Your task to perform on an android device: turn pop-ups on in chrome Image 0: 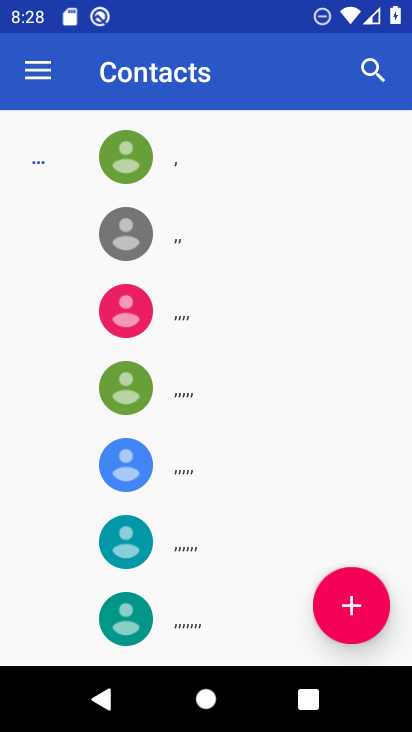
Step 0: press home button
Your task to perform on an android device: turn pop-ups on in chrome Image 1: 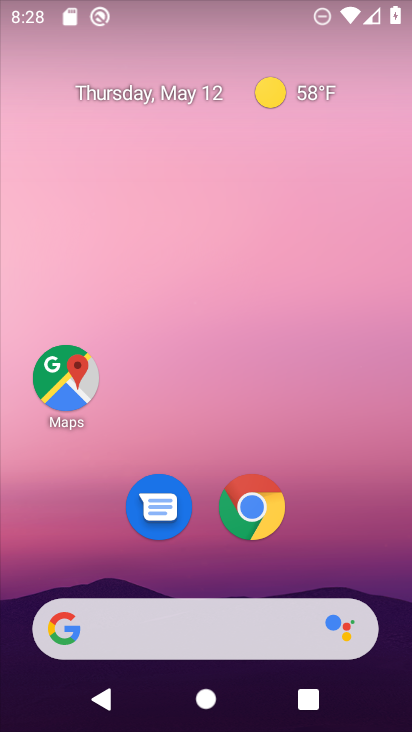
Step 1: click (249, 521)
Your task to perform on an android device: turn pop-ups on in chrome Image 2: 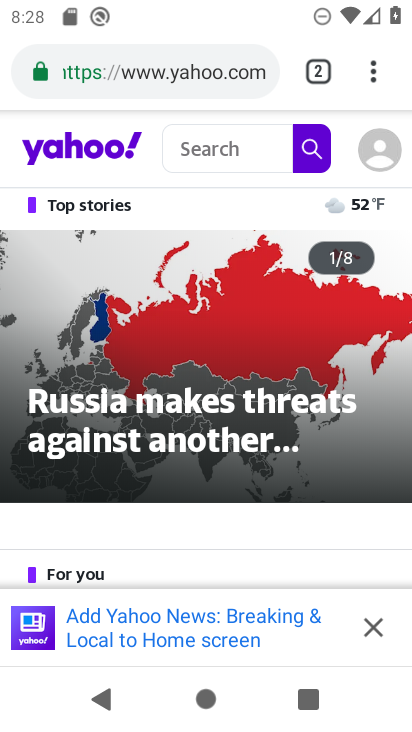
Step 2: drag from (368, 68) to (123, 500)
Your task to perform on an android device: turn pop-ups on in chrome Image 3: 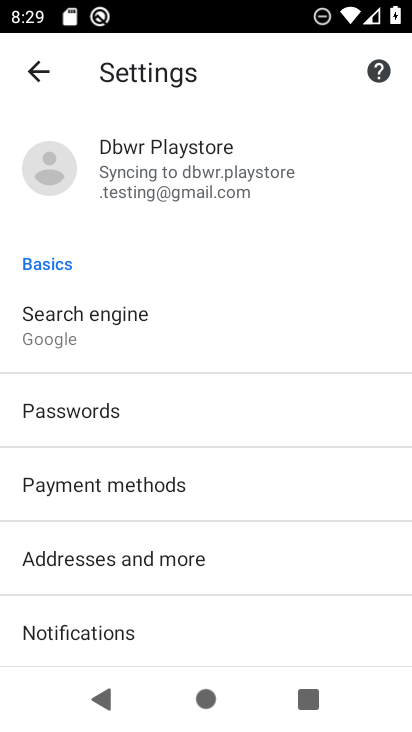
Step 3: drag from (170, 559) to (179, 316)
Your task to perform on an android device: turn pop-ups on in chrome Image 4: 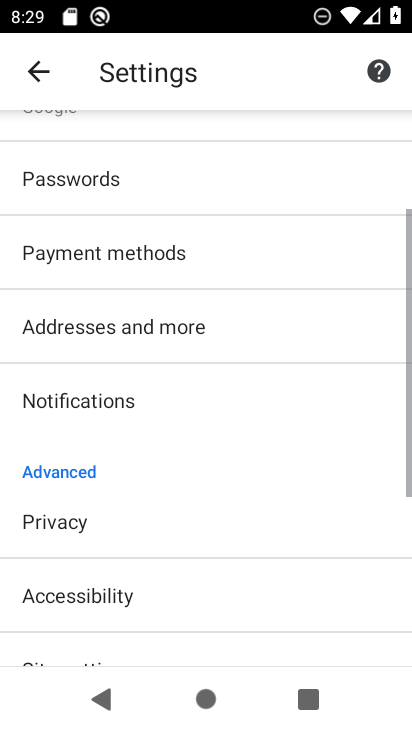
Step 4: drag from (185, 516) to (192, 326)
Your task to perform on an android device: turn pop-ups on in chrome Image 5: 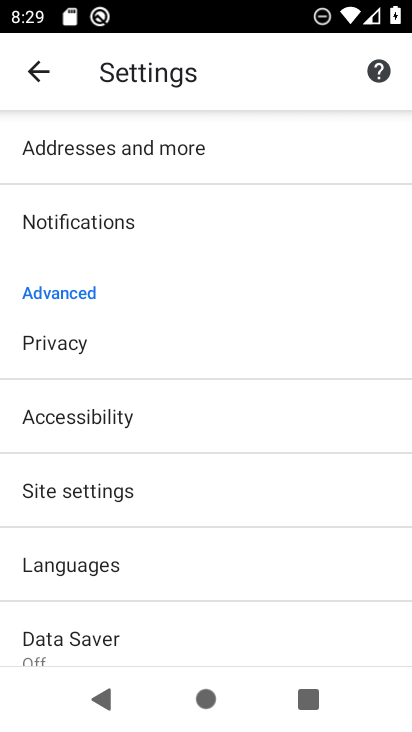
Step 5: click (86, 482)
Your task to perform on an android device: turn pop-ups on in chrome Image 6: 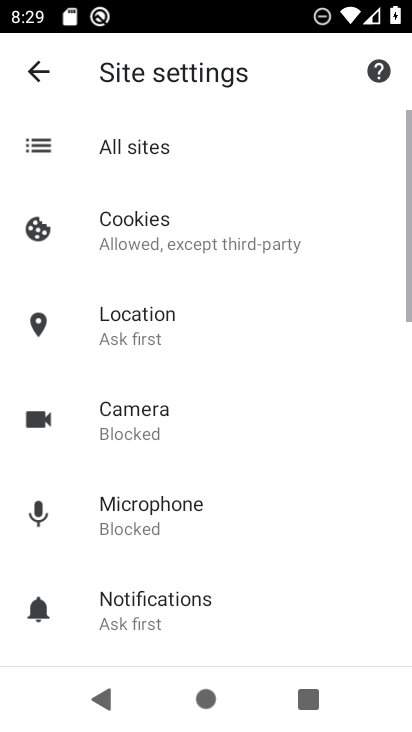
Step 6: drag from (204, 572) to (243, 302)
Your task to perform on an android device: turn pop-ups on in chrome Image 7: 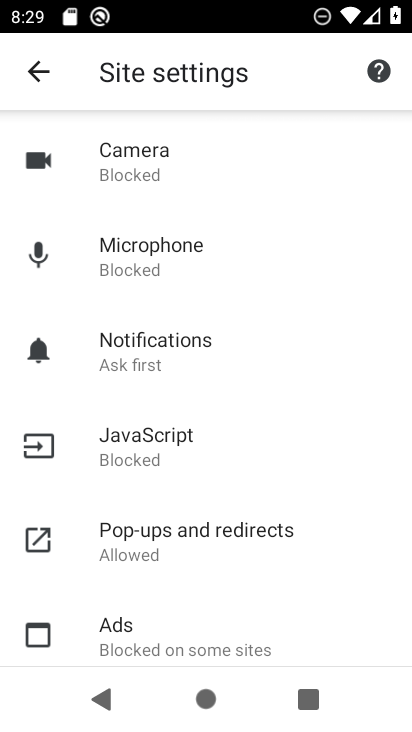
Step 7: click (221, 545)
Your task to perform on an android device: turn pop-ups on in chrome Image 8: 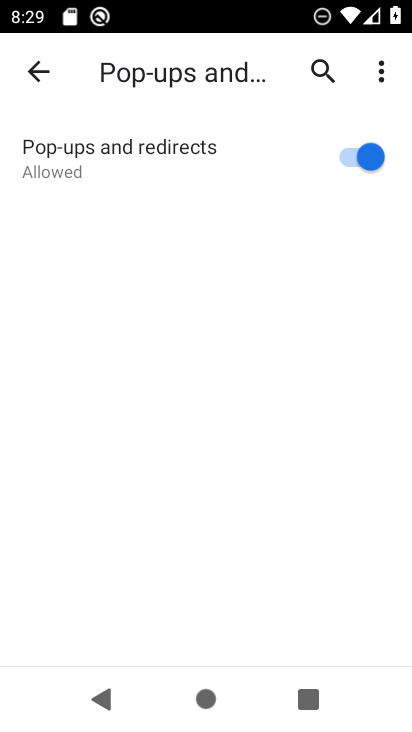
Step 8: task complete